Your task to perform on an android device: Go to Google Image 0: 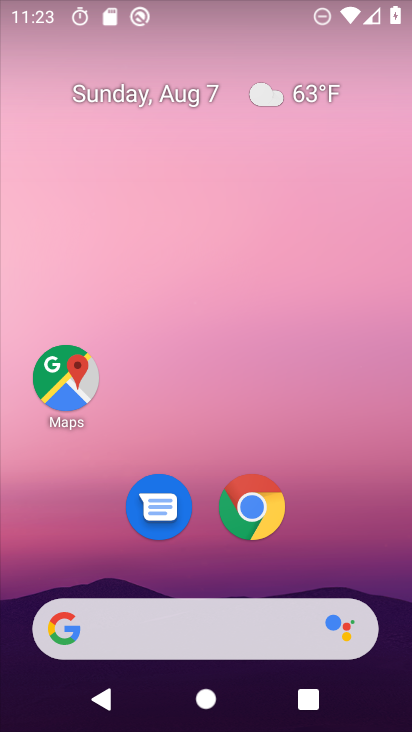
Step 0: drag from (309, 299) to (83, 0)
Your task to perform on an android device: Go to Google Image 1: 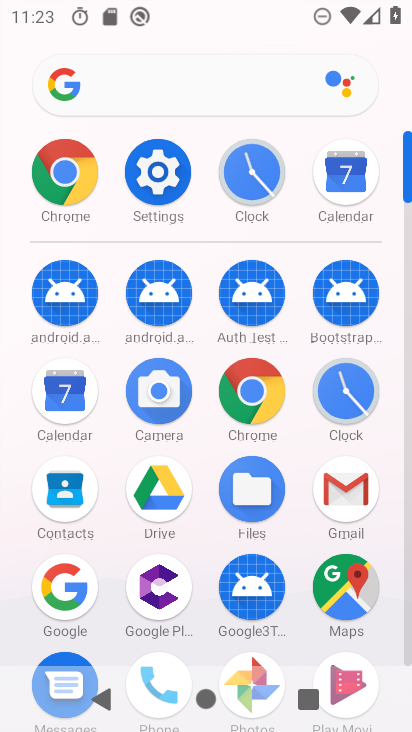
Step 1: click (73, 590)
Your task to perform on an android device: Go to Google Image 2: 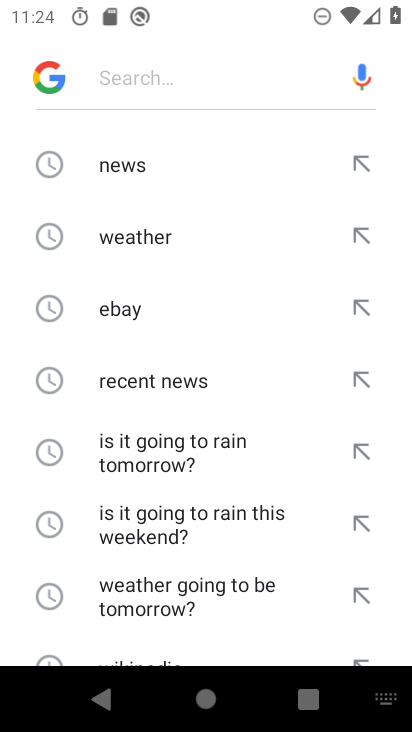
Step 2: task complete